Your task to perform on an android device: Toggle the flashlight Image 0: 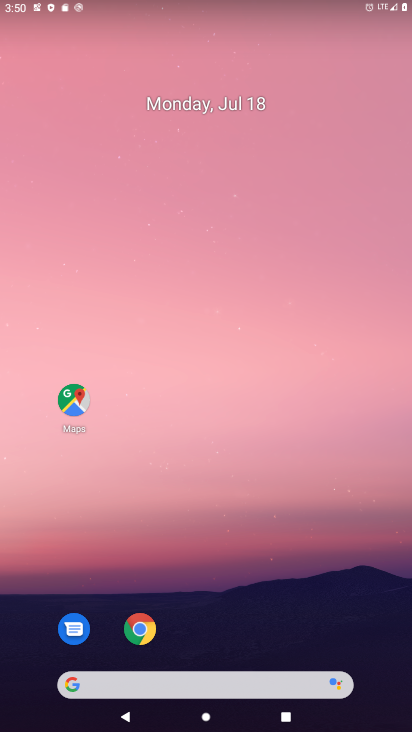
Step 0: drag from (212, 610) to (208, 50)
Your task to perform on an android device: Toggle the flashlight Image 1: 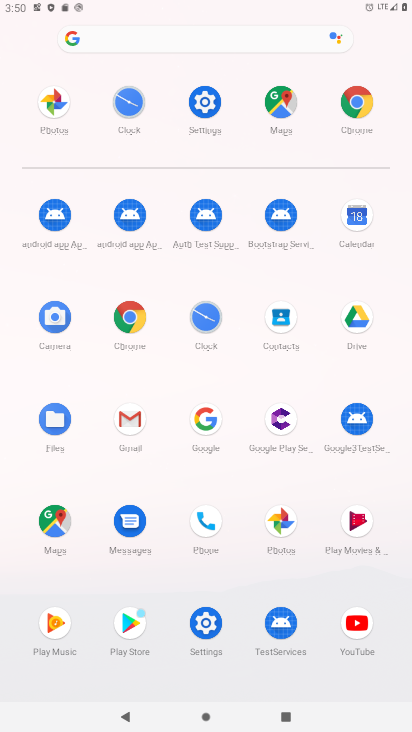
Step 1: click (208, 638)
Your task to perform on an android device: Toggle the flashlight Image 2: 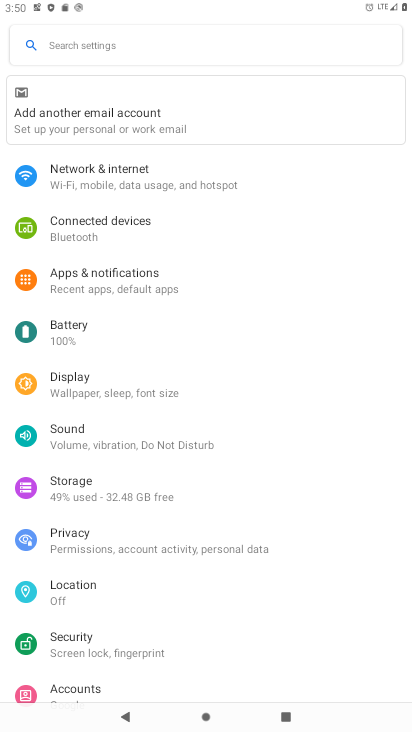
Step 2: click (202, 36)
Your task to perform on an android device: Toggle the flashlight Image 3: 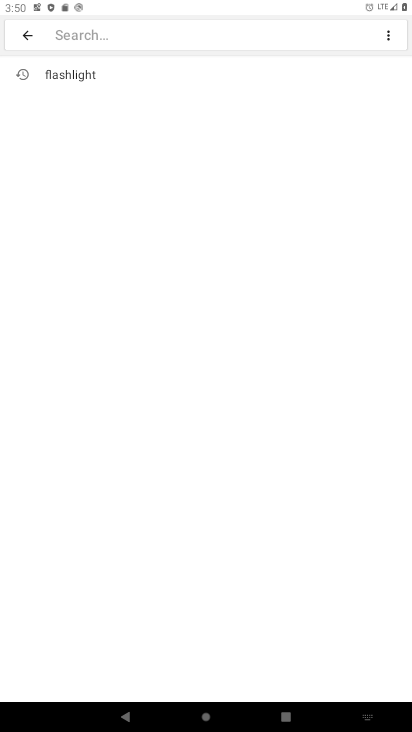
Step 3: type "flashlight"
Your task to perform on an android device: Toggle the flashlight Image 4: 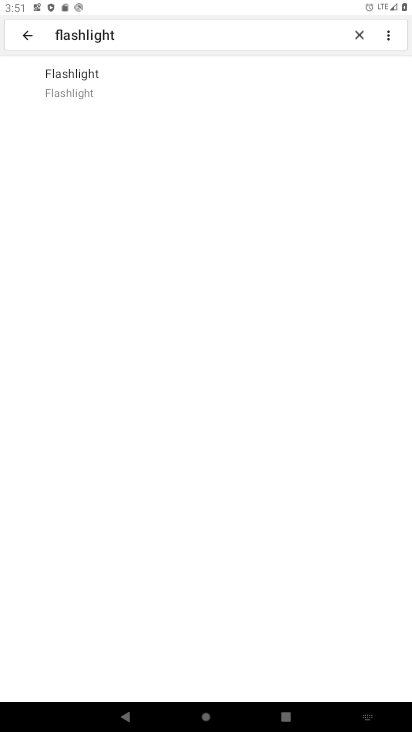
Step 4: click (74, 83)
Your task to perform on an android device: Toggle the flashlight Image 5: 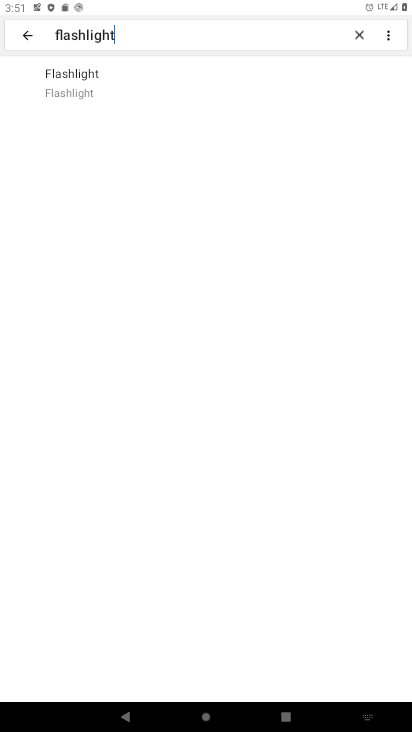
Step 5: click (86, 91)
Your task to perform on an android device: Toggle the flashlight Image 6: 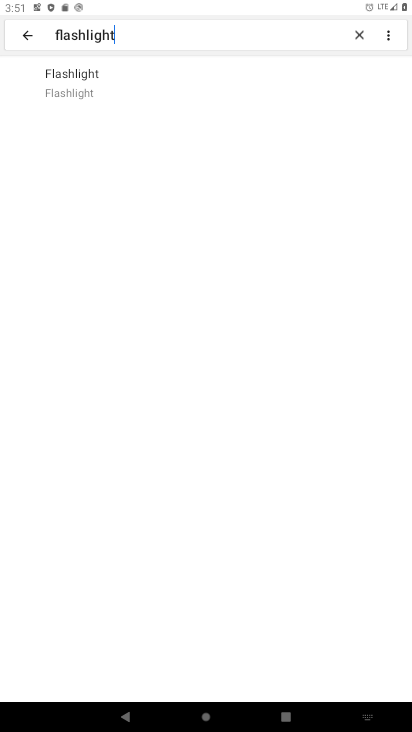
Step 6: task complete